Your task to perform on an android device: install app "Reddit" Image 0: 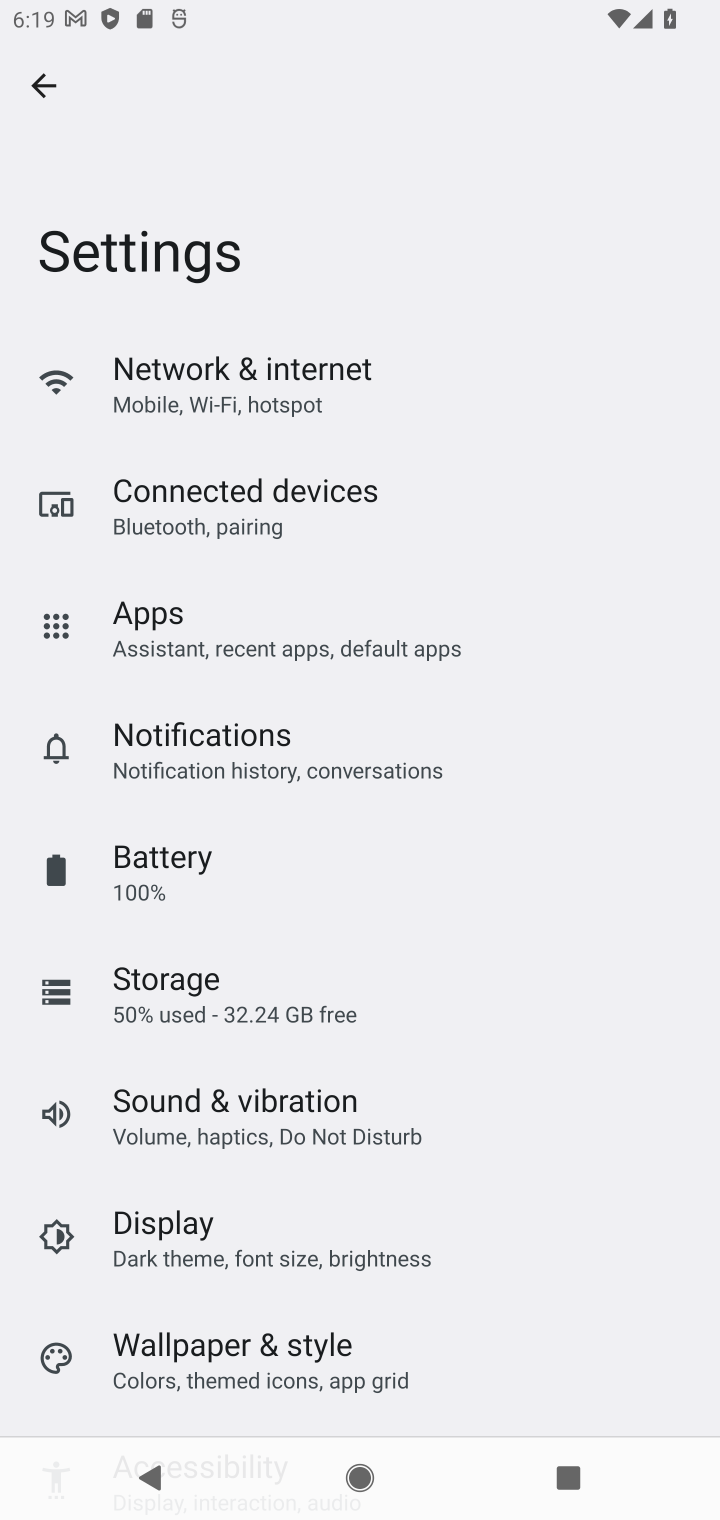
Step 0: press home button
Your task to perform on an android device: install app "Reddit" Image 1: 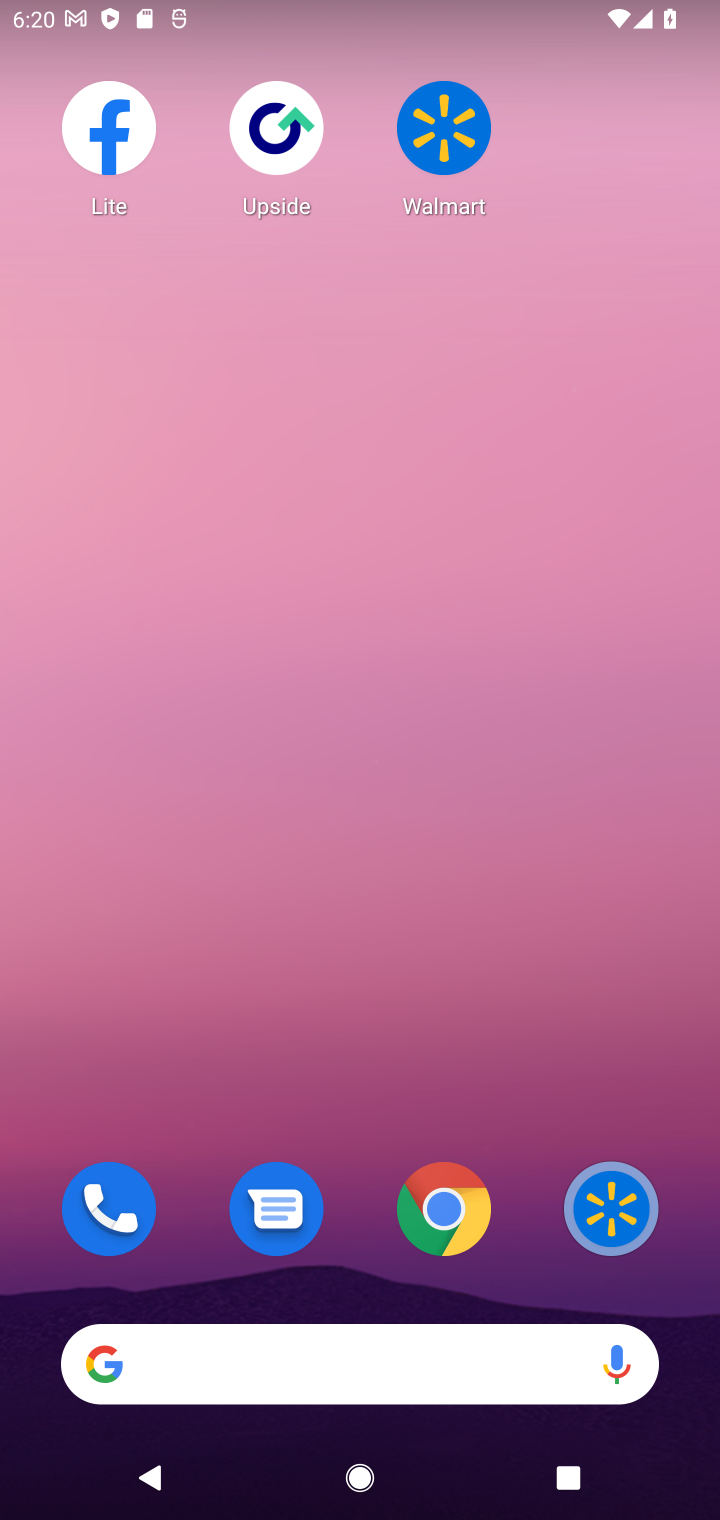
Step 1: press home button
Your task to perform on an android device: install app "Reddit" Image 2: 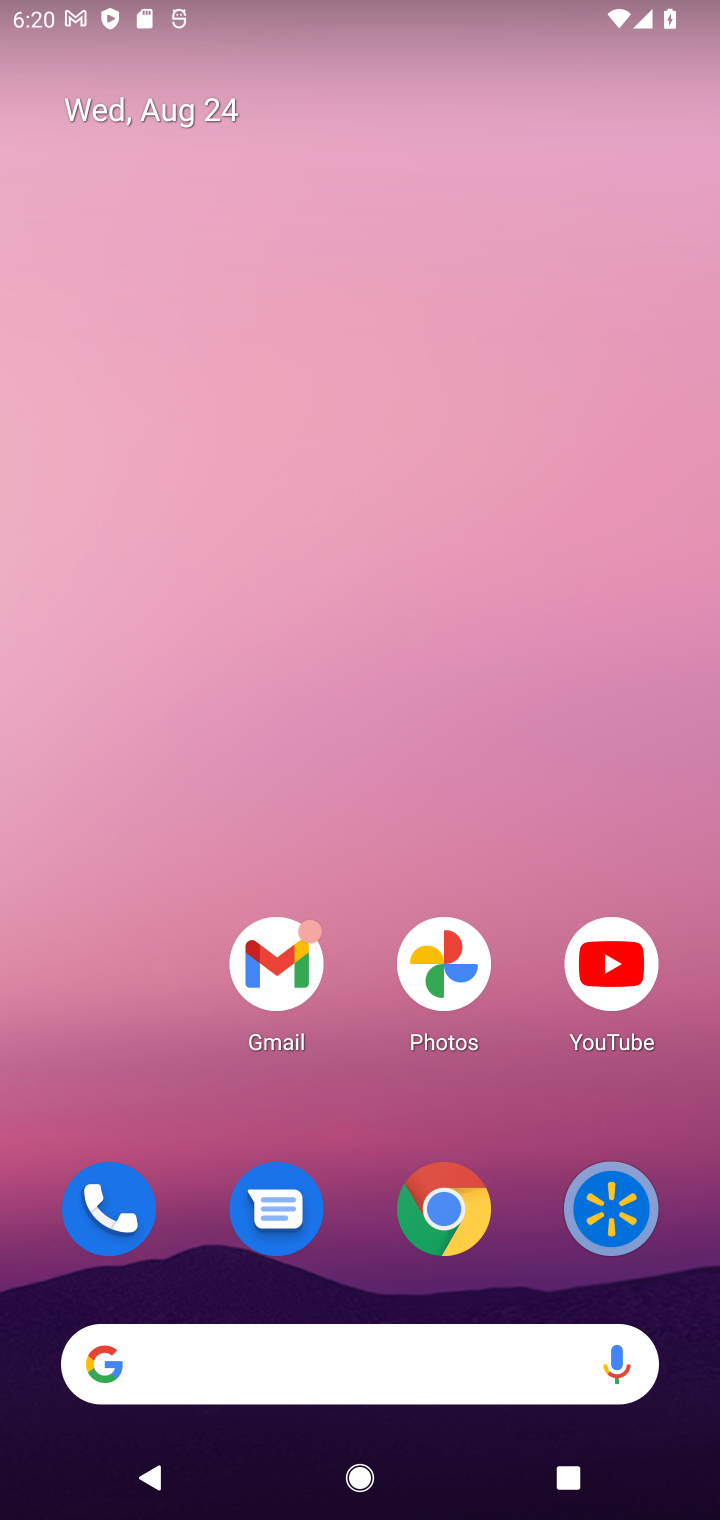
Step 2: drag from (400, 1211) to (354, 353)
Your task to perform on an android device: install app "Reddit" Image 3: 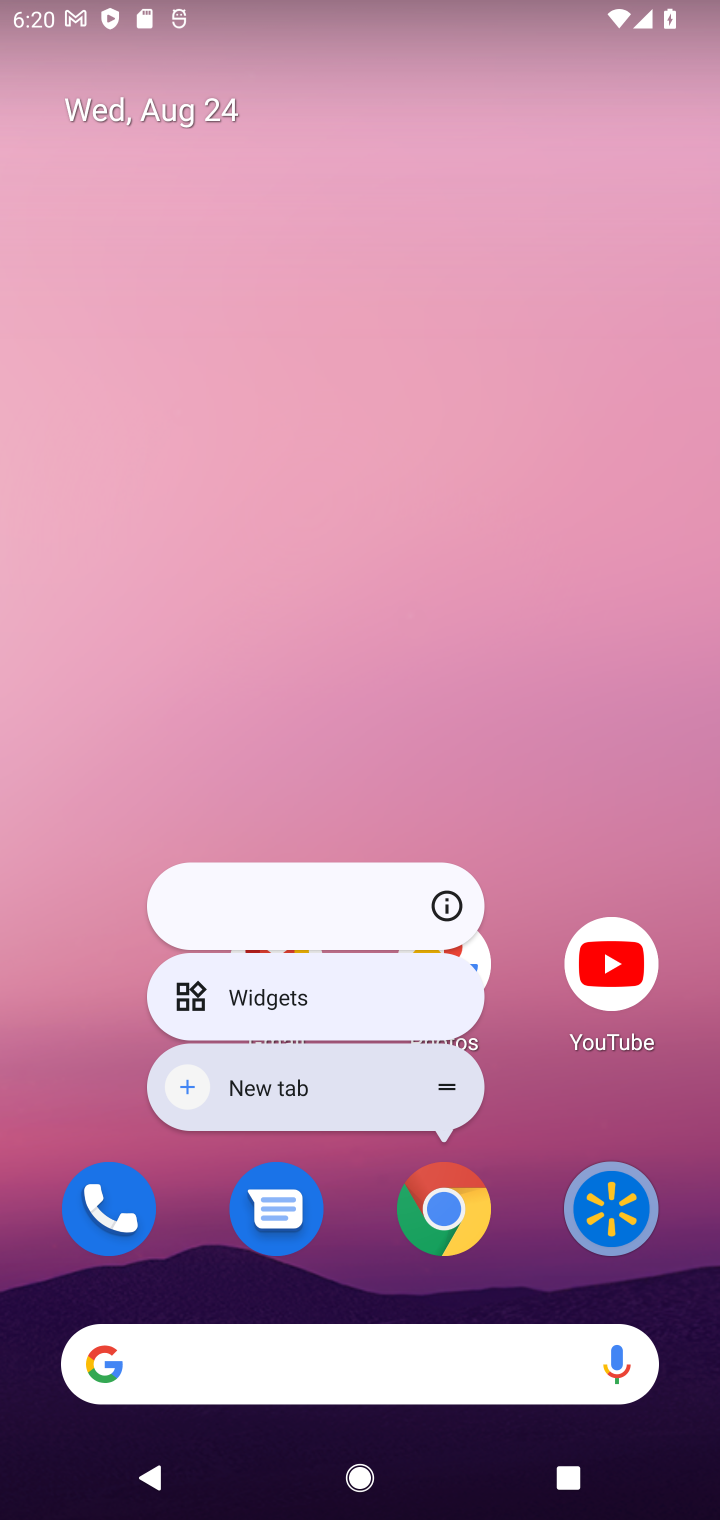
Step 3: click (426, 563)
Your task to perform on an android device: install app "Reddit" Image 4: 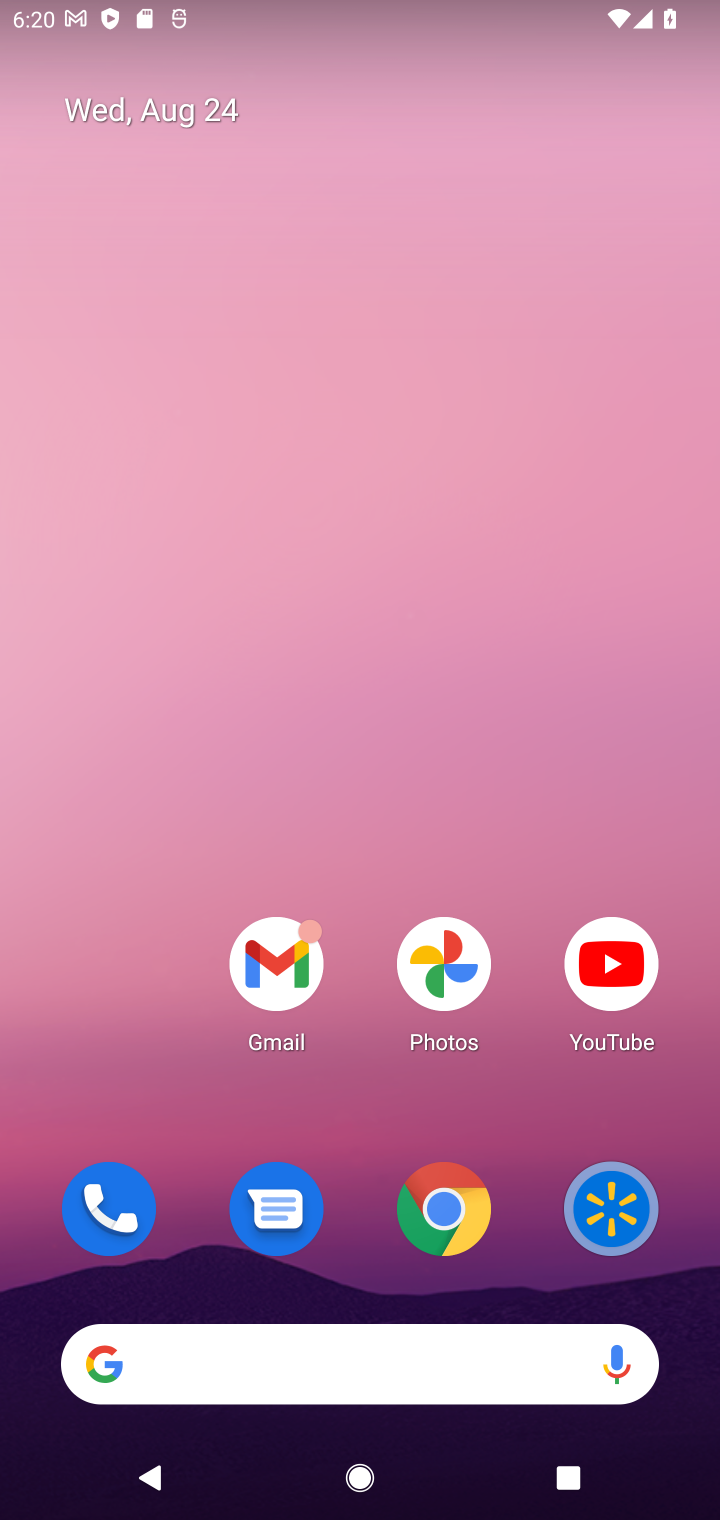
Step 4: drag from (396, 1317) to (411, 33)
Your task to perform on an android device: install app "Reddit" Image 5: 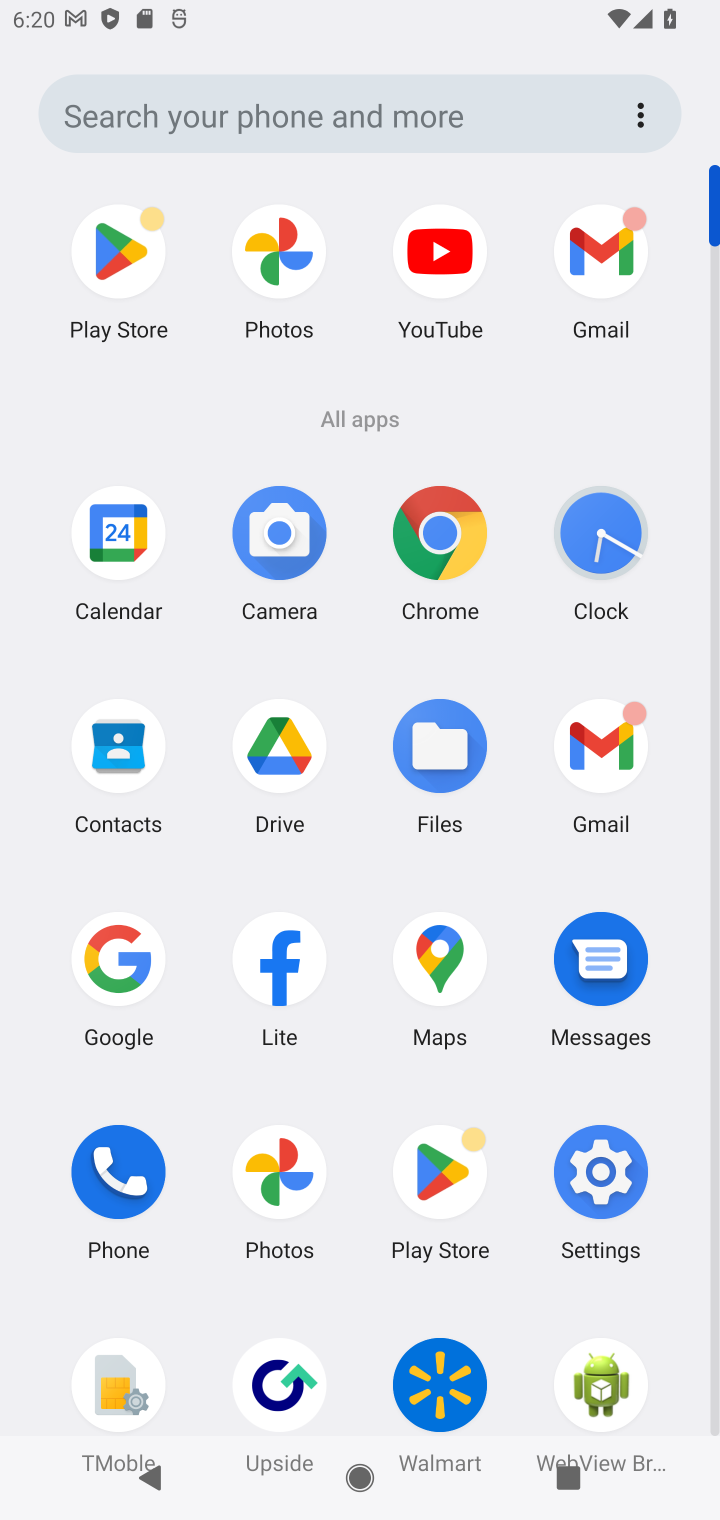
Step 5: click (439, 1188)
Your task to perform on an android device: install app "Reddit" Image 6: 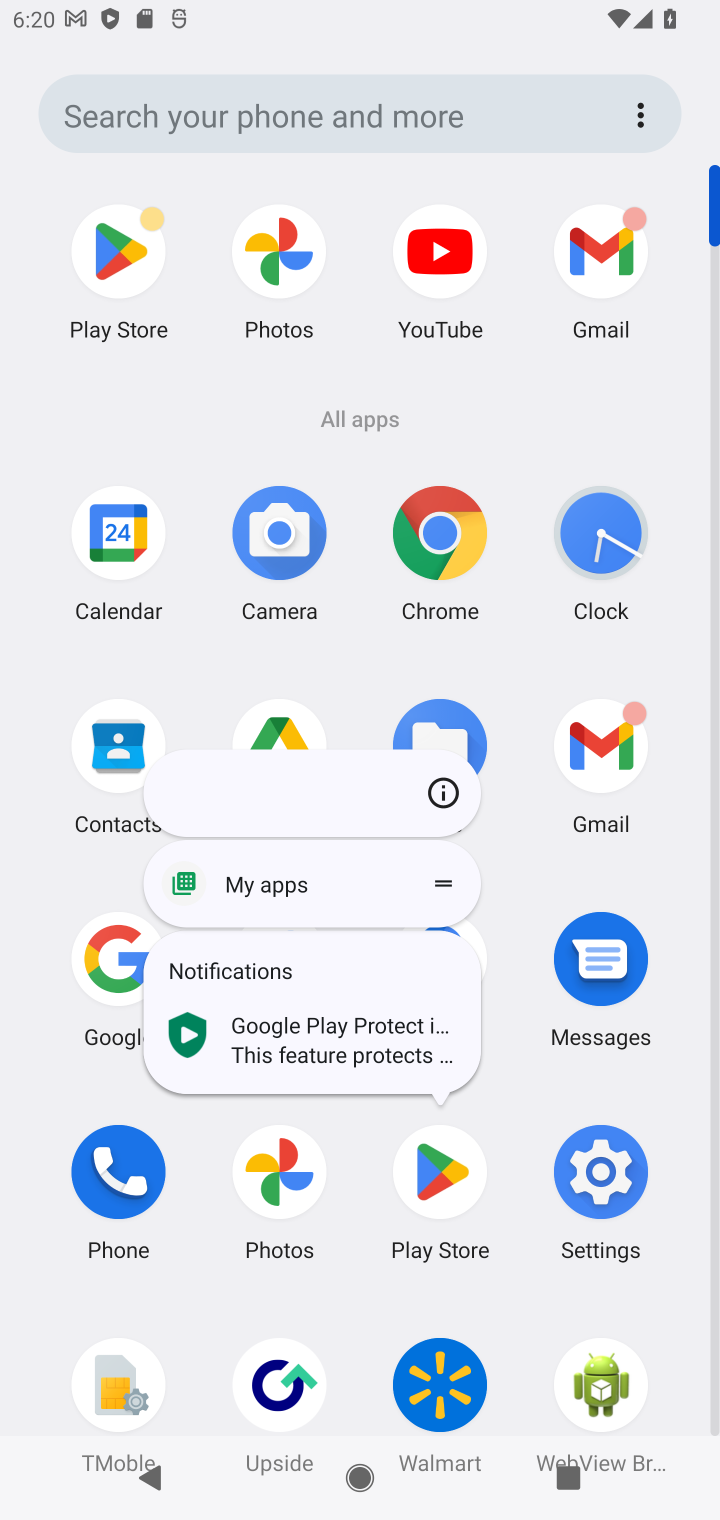
Step 6: click (439, 1188)
Your task to perform on an android device: install app "Reddit" Image 7: 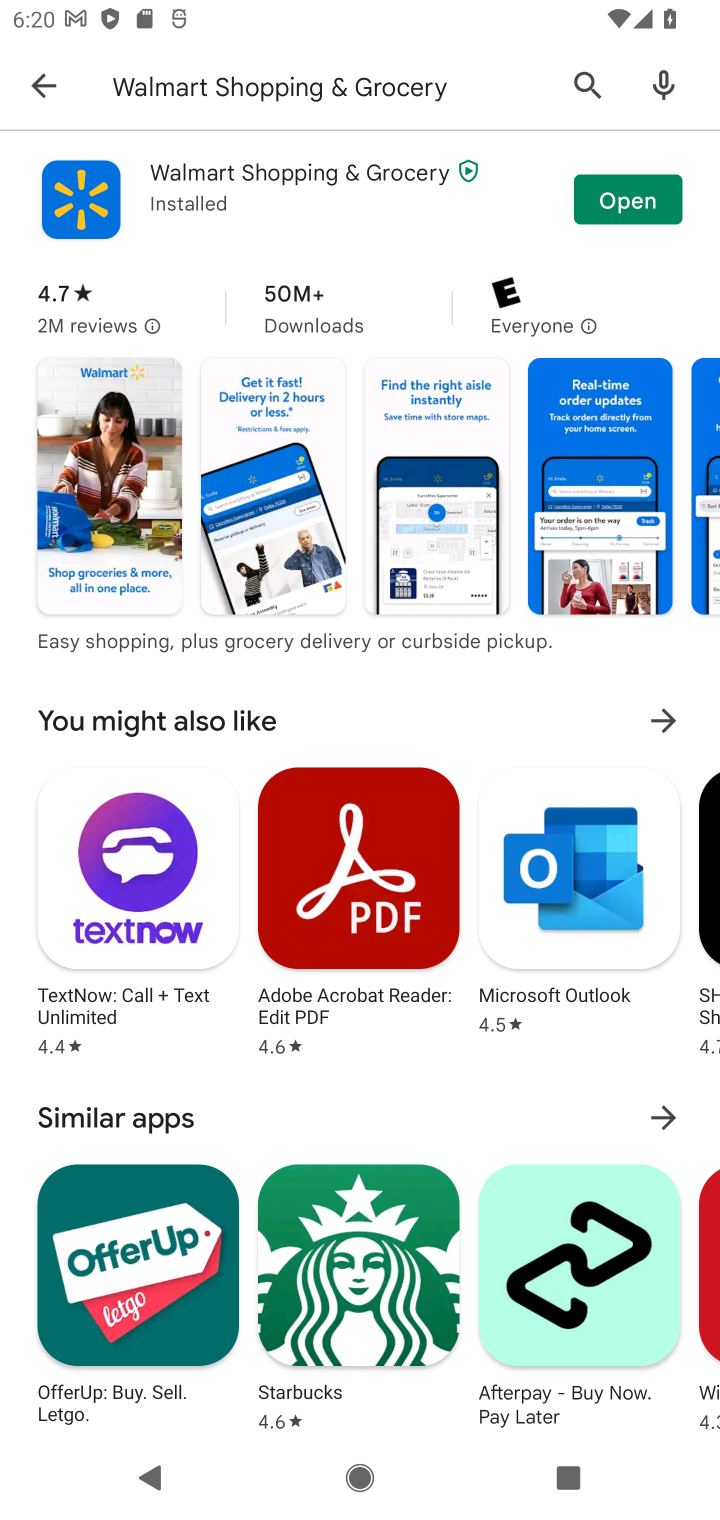
Step 7: press back button
Your task to perform on an android device: install app "Reddit" Image 8: 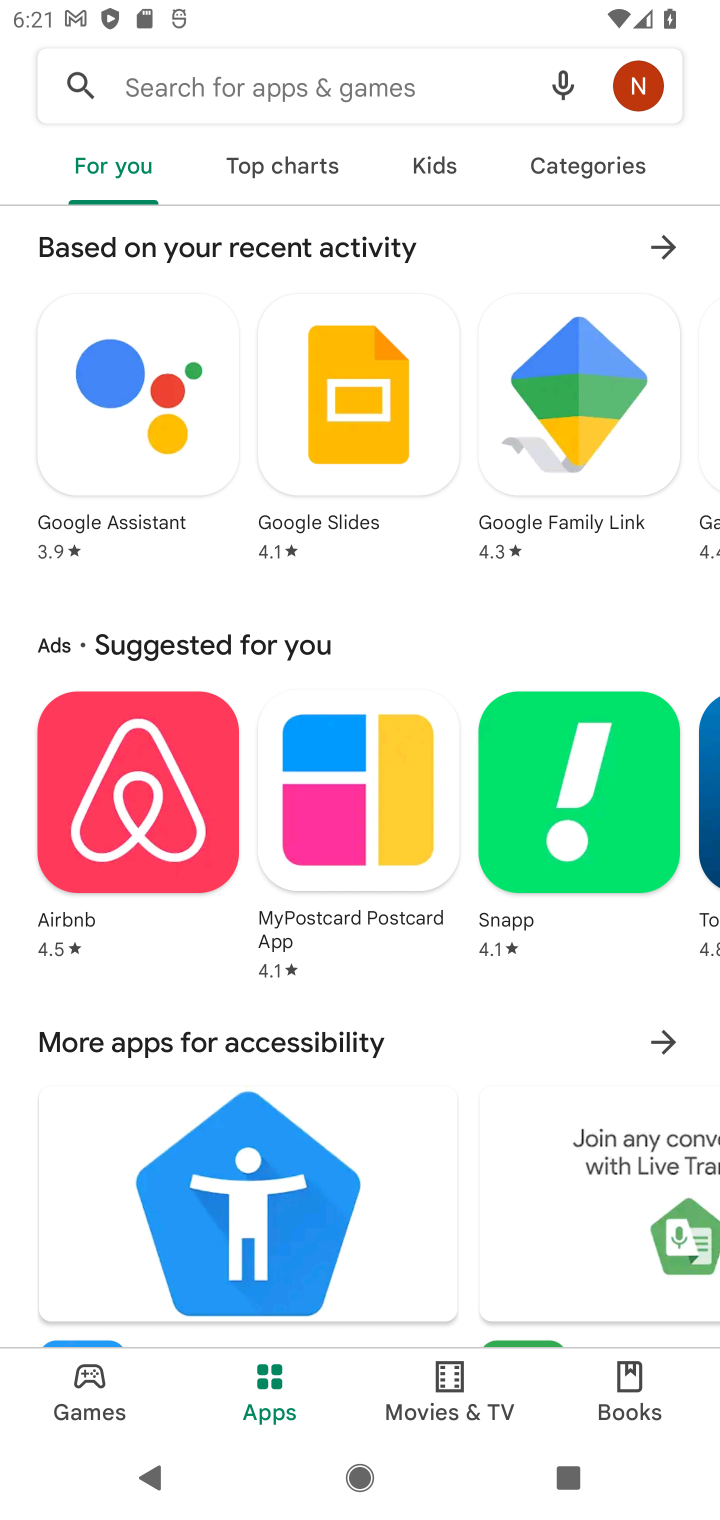
Step 8: click (300, 114)
Your task to perform on an android device: install app "Reddit" Image 9: 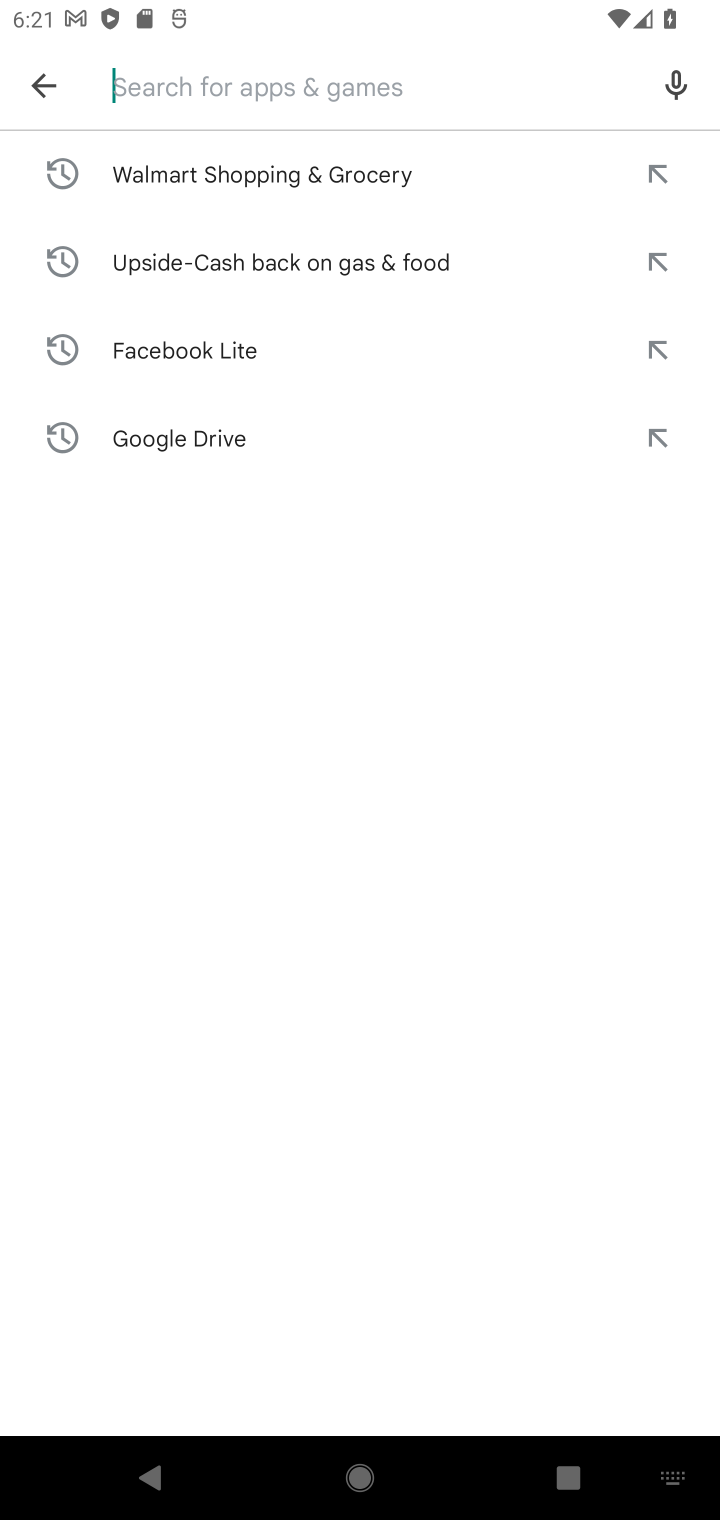
Step 9: type "Reddit"
Your task to perform on an android device: install app "Reddit" Image 10: 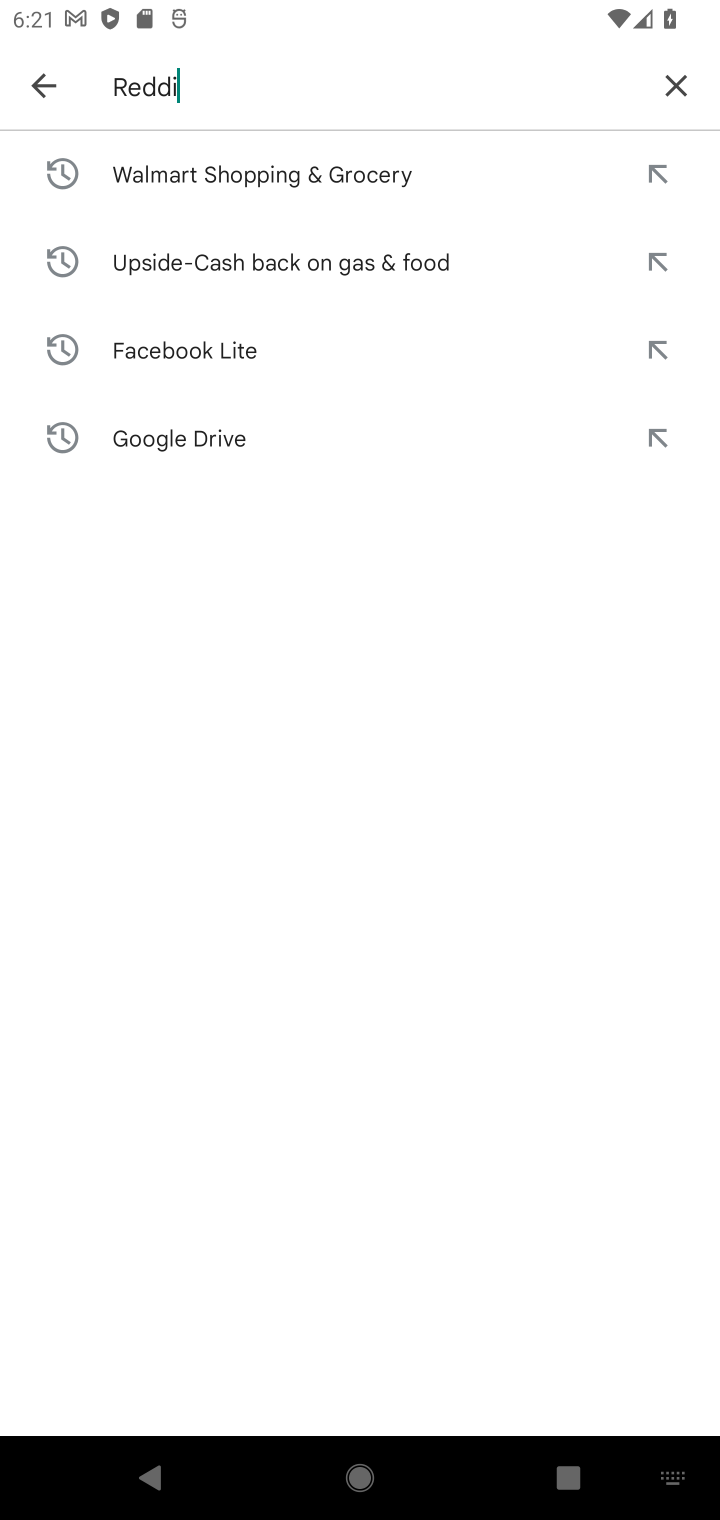
Step 10: press enter
Your task to perform on an android device: install app "Reddit" Image 11: 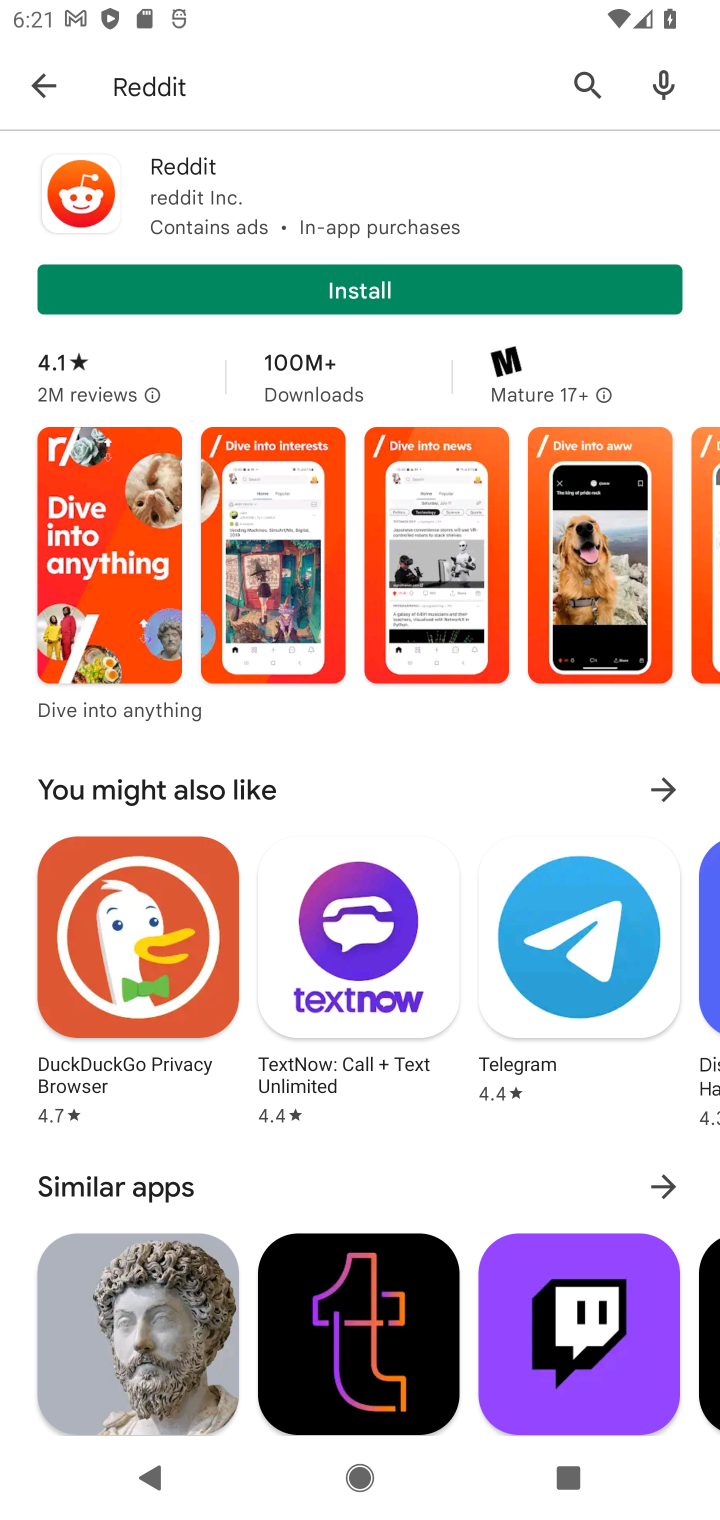
Step 11: click (370, 270)
Your task to perform on an android device: install app "Reddit" Image 12: 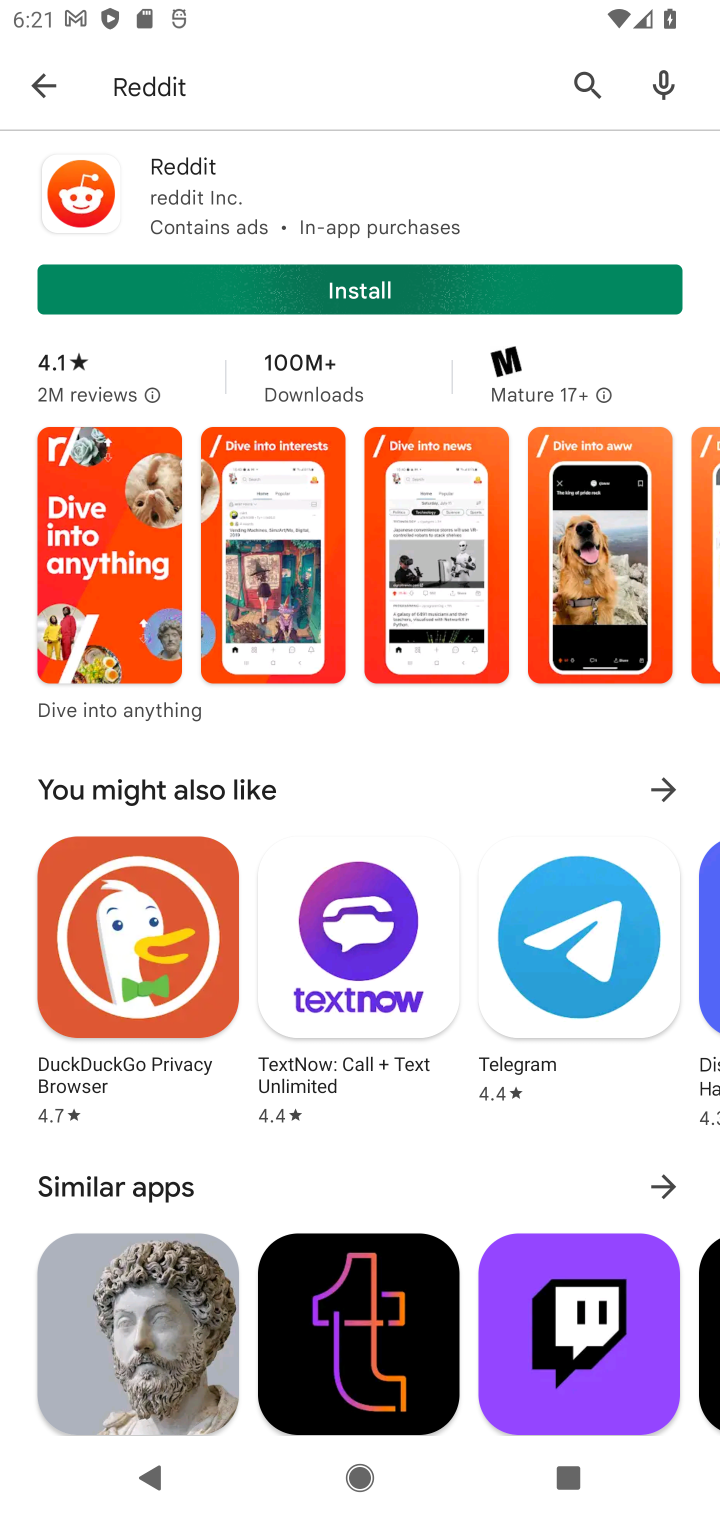
Step 12: click (367, 307)
Your task to perform on an android device: install app "Reddit" Image 13: 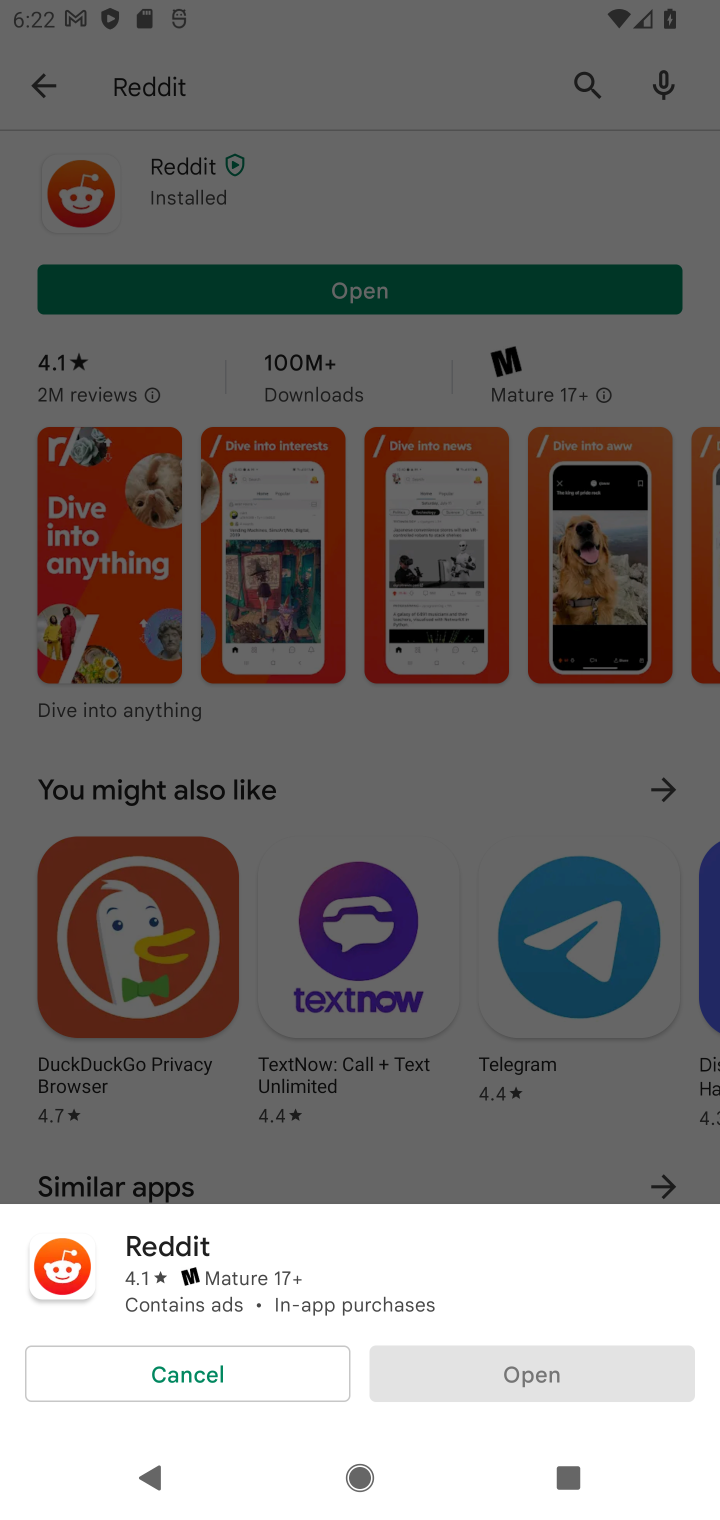
Step 13: click (238, 1393)
Your task to perform on an android device: install app "Reddit" Image 14: 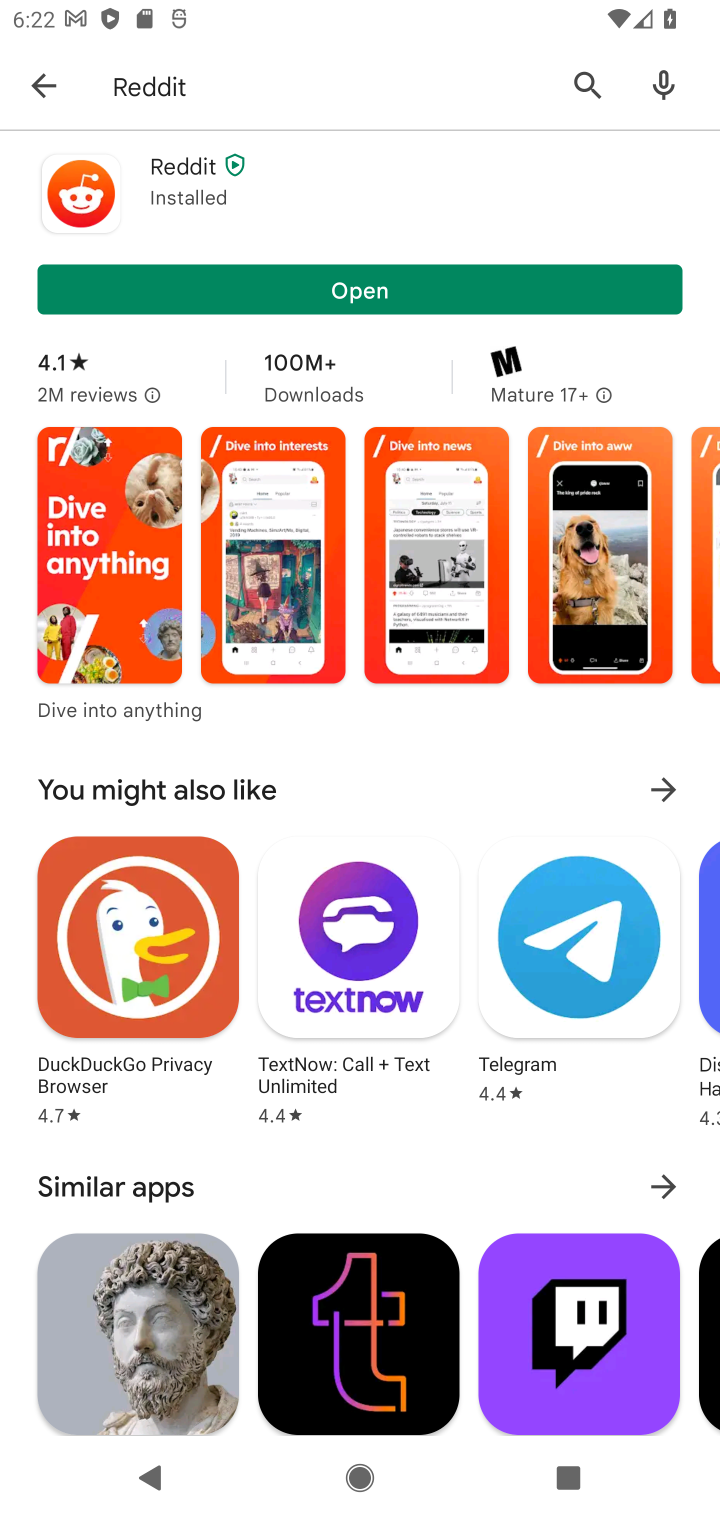
Step 14: click (453, 309)
Your task to perform on an android device: install app "Reddit" Image 15: 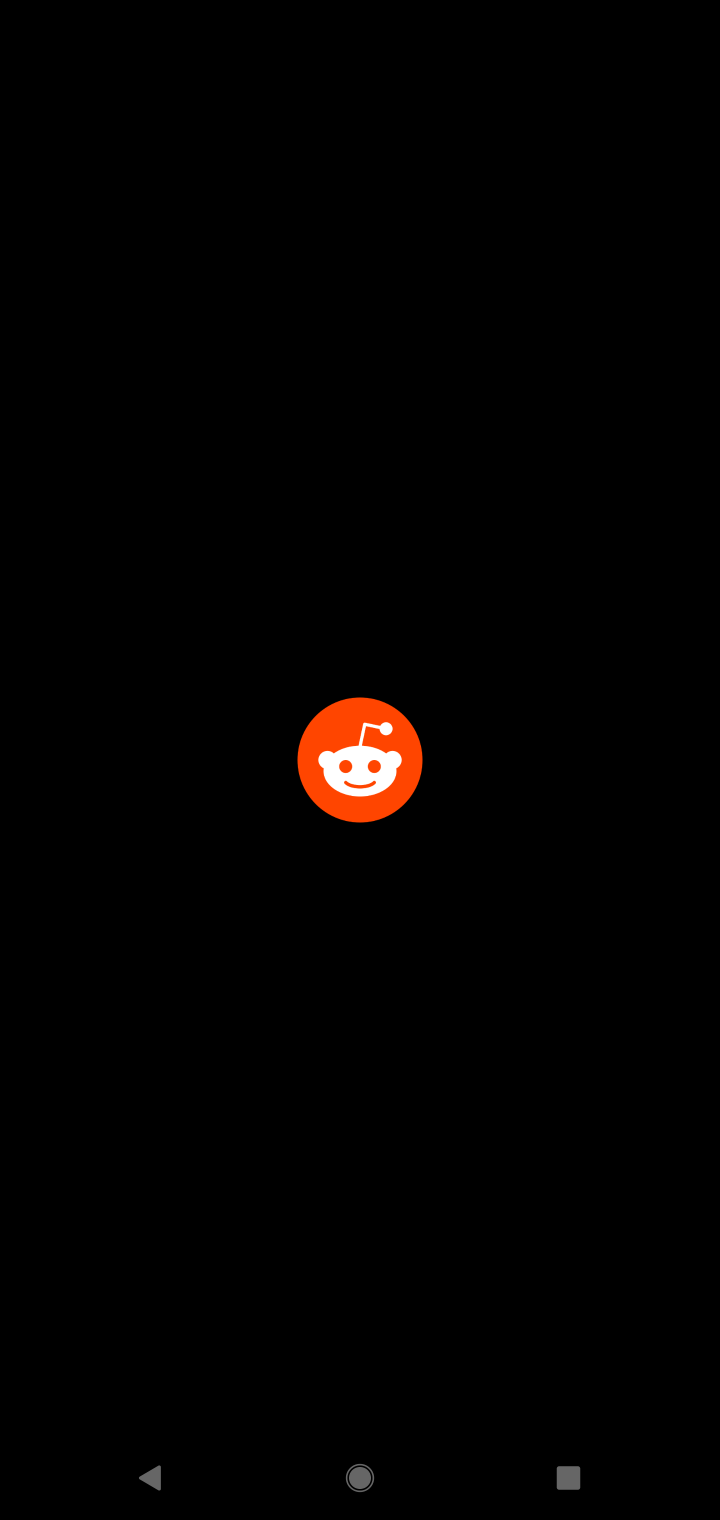
Step 15: task complete